Your task to perform on an android device: What is the news today? Image 0: 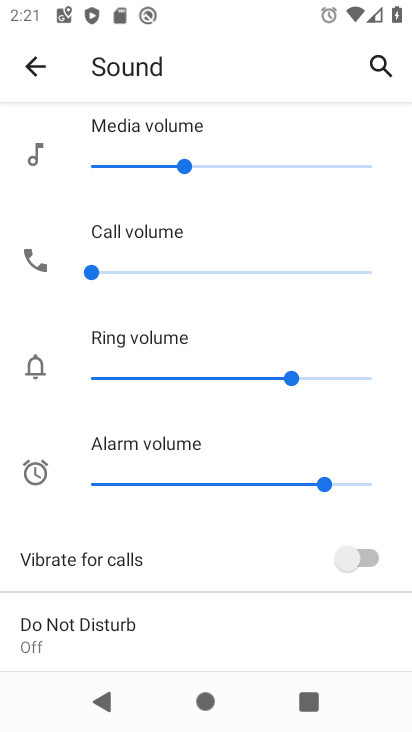
Step 0: press home button
Your task to perform on an android device: What is the news today? Image 1: 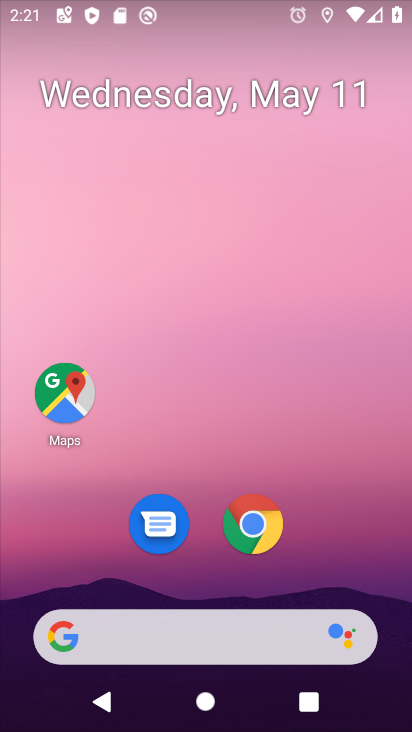
Step 1: click (288, 637)
Your task to perform on an android device: What is the news today? Image 2: 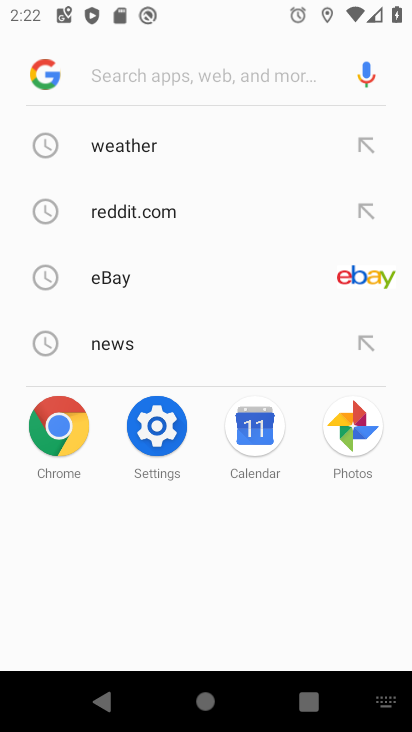
Step 2: click (288, 637)
Your task to perform on an android device: What is the news today? Image 3: 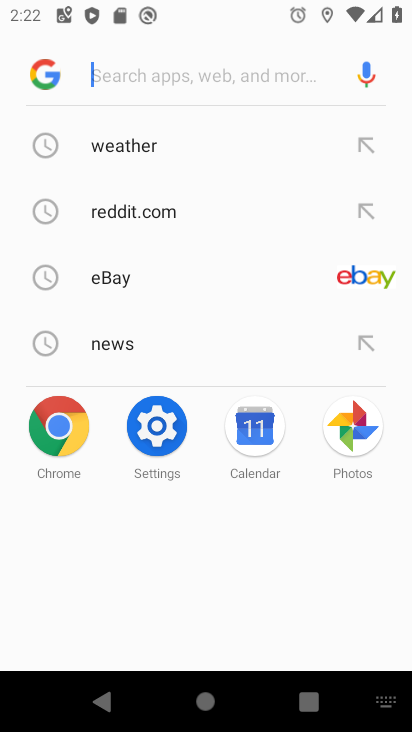
Step 3: click (108, 333)
Your task to perform on an android device: What is the news today? Image 4: 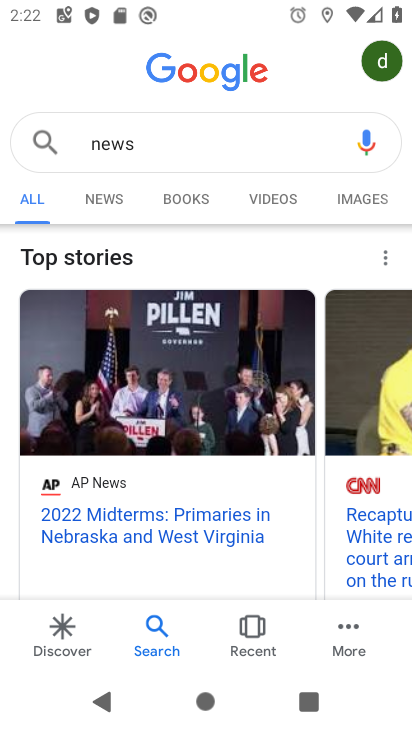
Step 4: click (96, 183)
Your task to perform on an android device: What is the news today? Image 5: 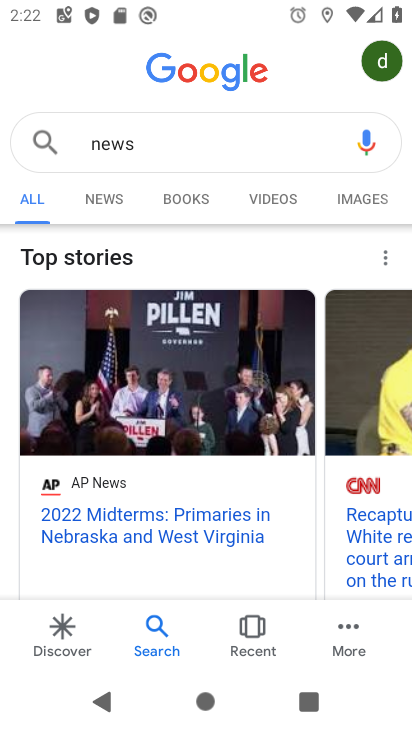
Step 5: click (108, 195)
Your task to perform on an android device: What is the news today? Image 6: 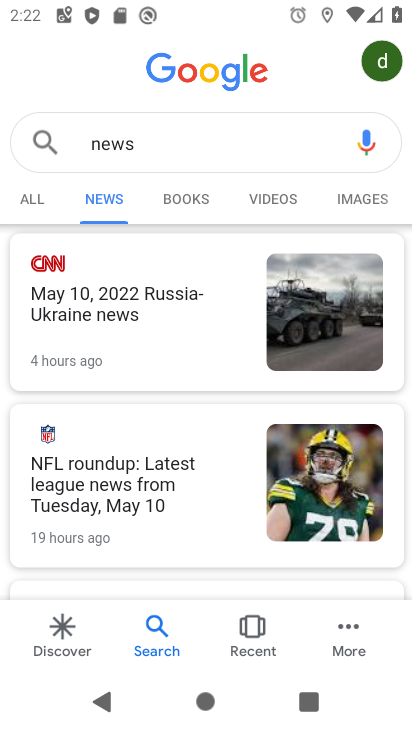
Step 6: task complete